Your task to perform on an android device: Open the calendar and show me this week's events Image 0: 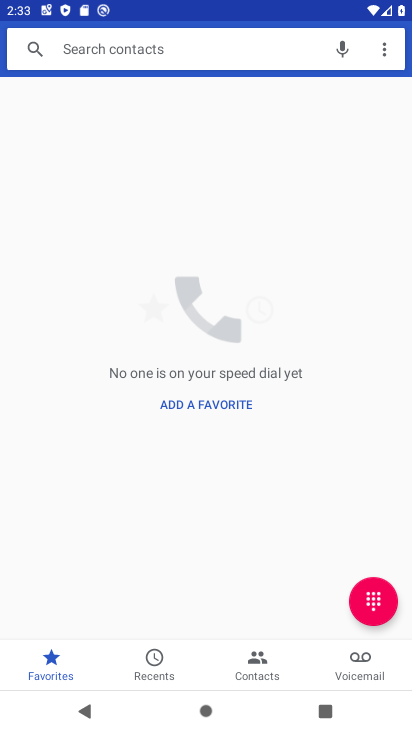
Step 0: press home button
Your task to perform on an android device: Open the calendar and show me this week's events Image 1: 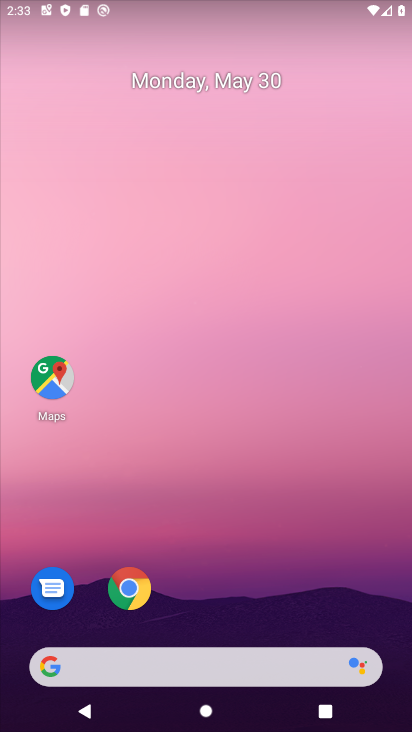
Step 1: drag from (259, 571) to (232, 181)
Your task to perform on an android device: Open the calendar and show me this week's events Image 2: 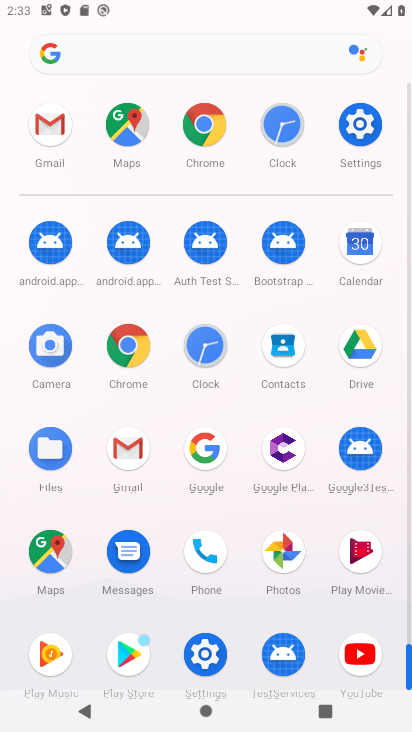
Step 2: click (367, 240)
Your task to perform on an android device: Open the calendar and show me this week's events Image 3: 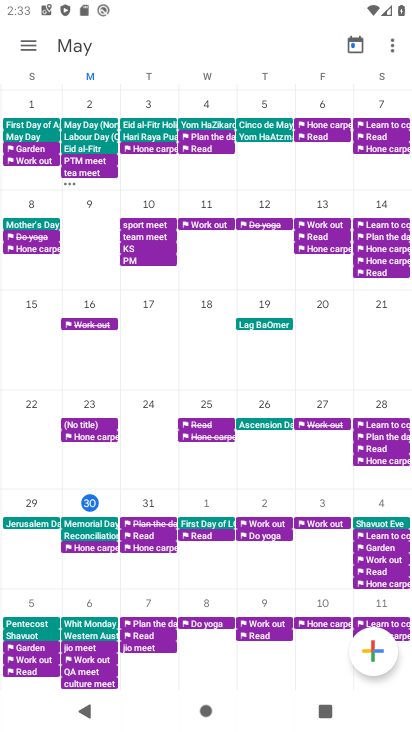
Step 3: click (23, 47)
Your task to perform on an android device: Open the calendar and show me this week's events Image 4: 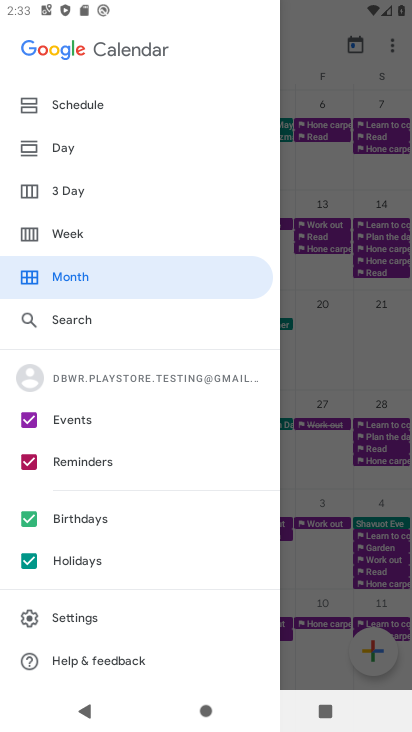
Step 4: click (97, 226)
Your task to perform on an android device: Open the calendar and show me this week's events Image 5: 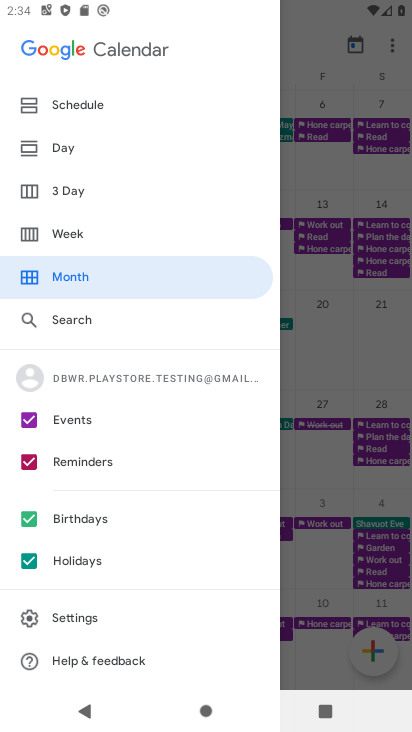
Step 5: click (87, 236)
Your task to perform on an android device: Open the calendar and show me this week's events Image 6: 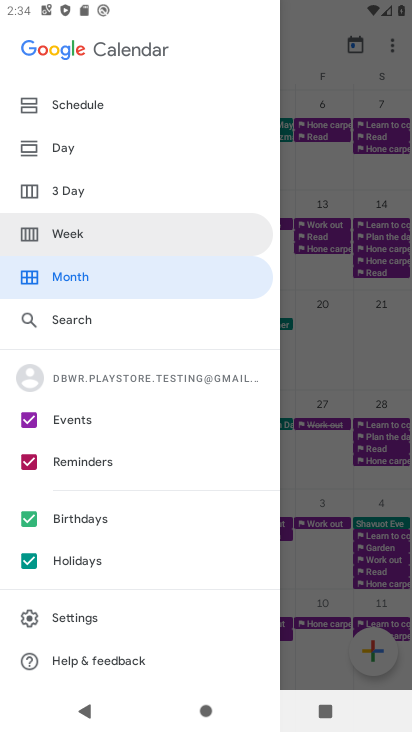
Step 6: click (81, 227)
Your task to perform on an android device: Open the calendar and show me this week's events Image 7: 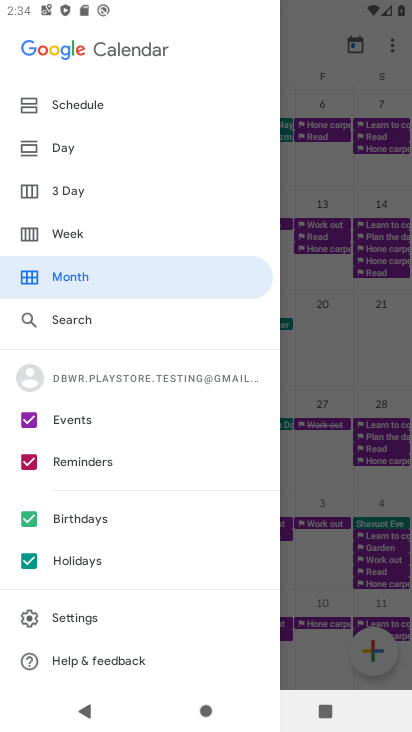
Step 7: click (78, 216)
Your task to perform on an android device: Open the calendar and show me this week's events Image 8: 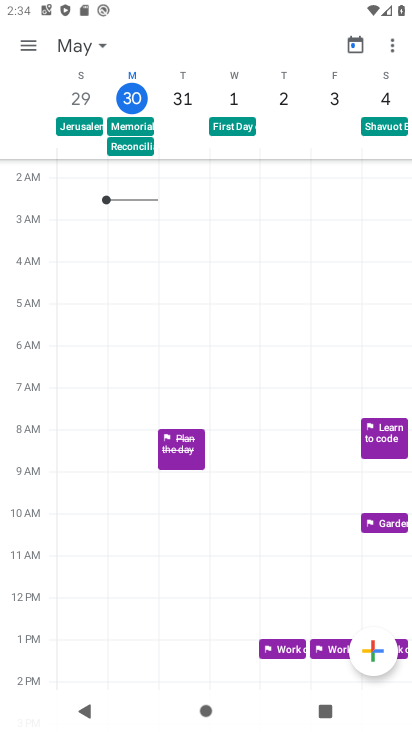
Step 8: task complete